Your task to perform on an android device: Open Yahoo.com Image 0: 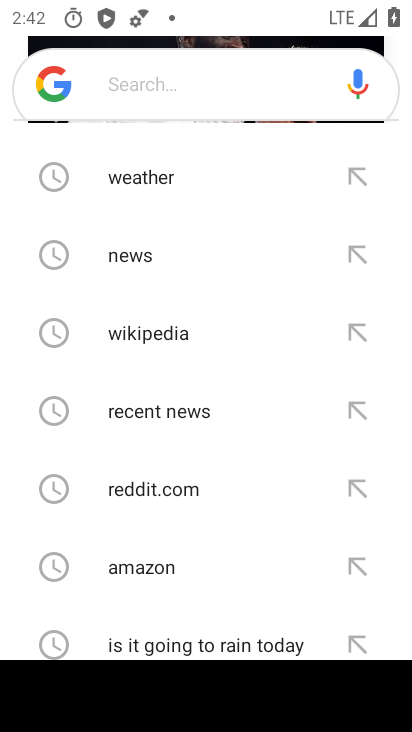
Step 0: press home button
Your task to perform on an android device: Open Yahoo.com Image 1: 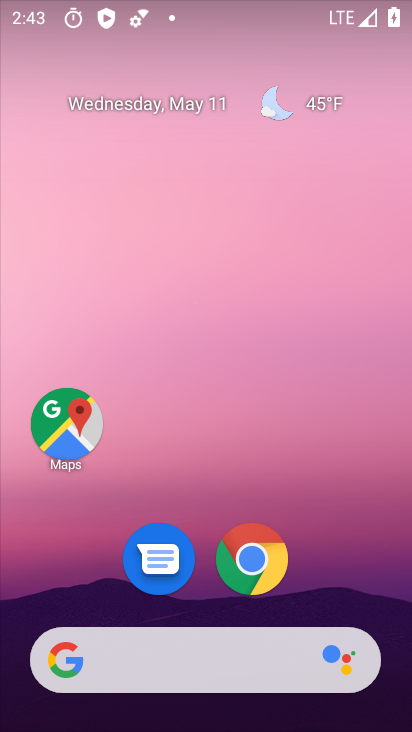
Step 1: click (246, 571)
Your task to perform on an android device: Open Yahoo.com Image 2: 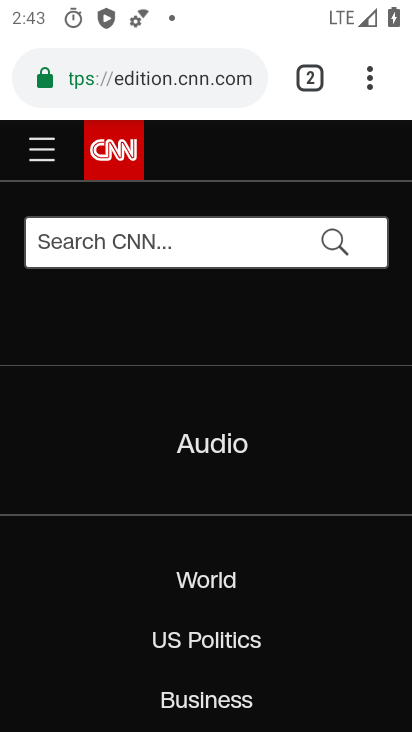
Step 2: click (311, 74)
Your task to perform on an android device: Open Yahoo.com Image 3: 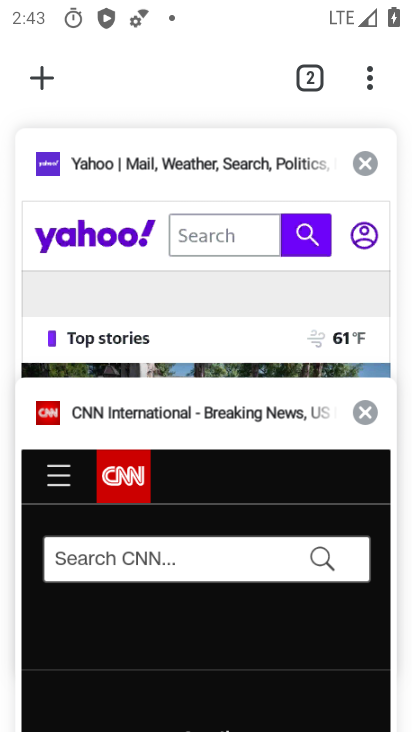
Step 3: click (135, 173)
Your task to perform on an android device: Open Yahoo.com Image 4: 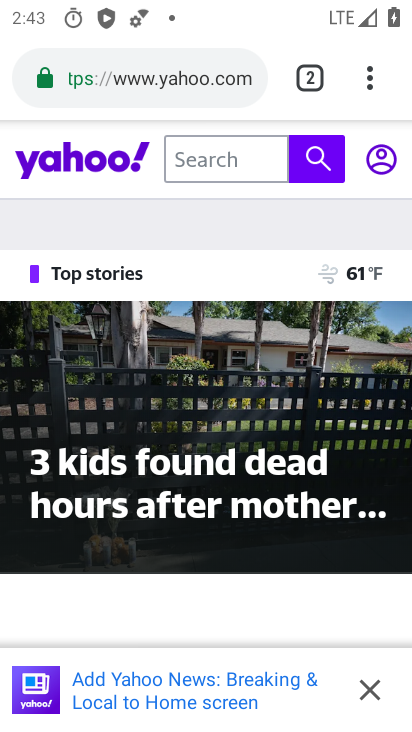
Step 4: task complete